Your task to perform on an android device: manage bookmarks in the chrome app Image 0: 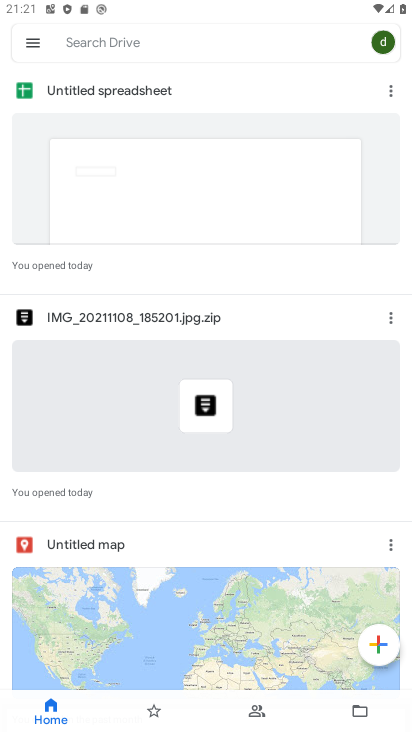
Step 0: press back button
Your task to perform on an android device: manage bookmarks in the chrome app Image 1: 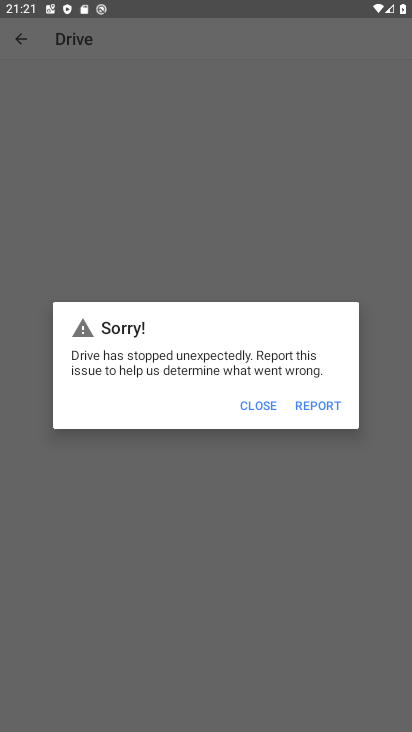
Step 1: press back button
Your task to perform on an android device: manage bookmarks in the chrome app Image 2: 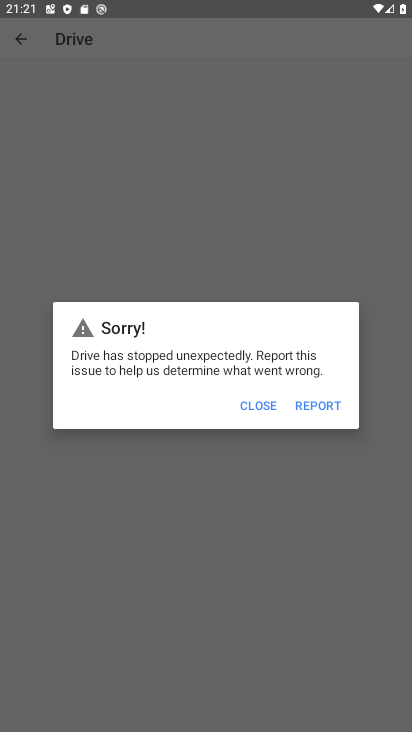
Step 2: click (253, 405)
Your task to perform on an android device: manage bookmarks in the chrome app Image 3: 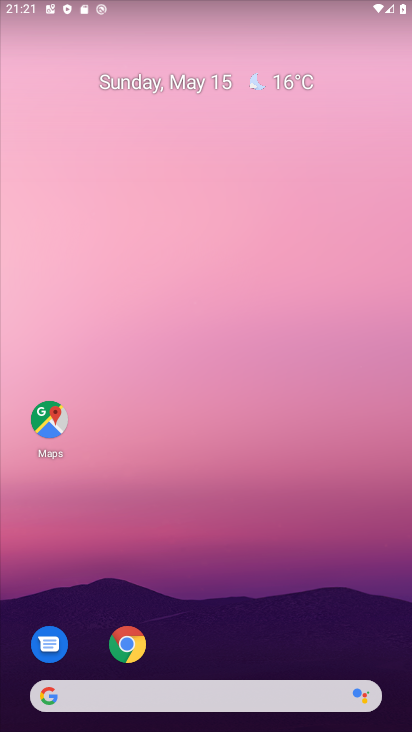
Step 3: click (123, 650)
Your task to perform on an android device: manage bookmarks in the chrome app Image 4: 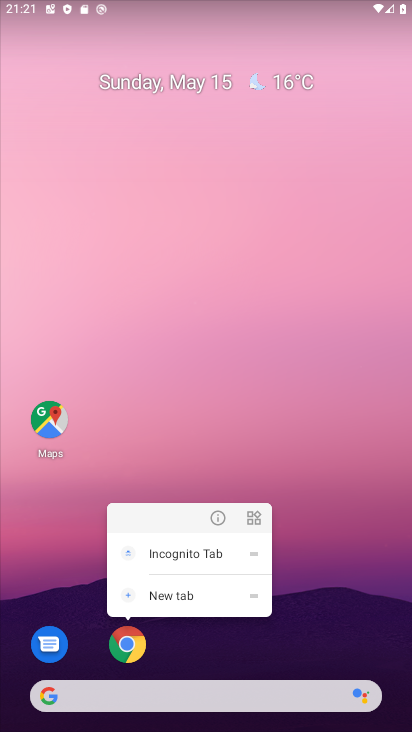
Step 4: click (131, 640)
Your task to perform on an android device: manage bookmarks in the chrome app Image 5: 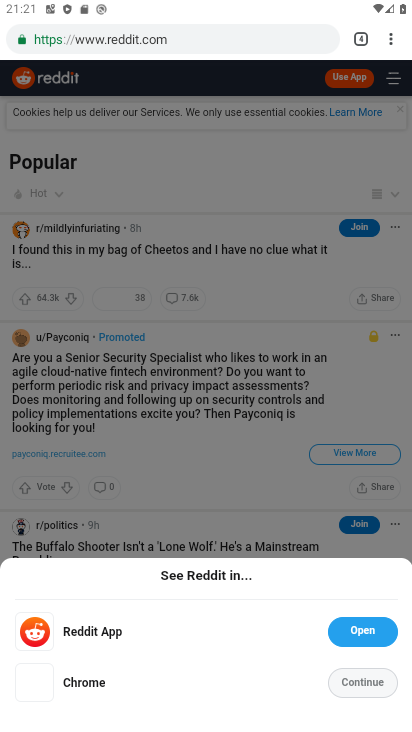
Step 5: drag from (387, 37) to (286, 153)
Your task to perform on an android device: manage bookmarks in the chrome app Image 6: 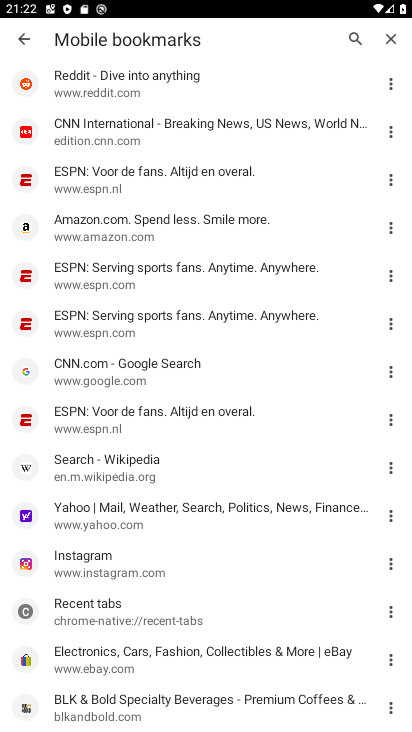
Step 6: click (390, 122)
Your task to perform on an android device: manage bookmarks in the chrome app Image 7: 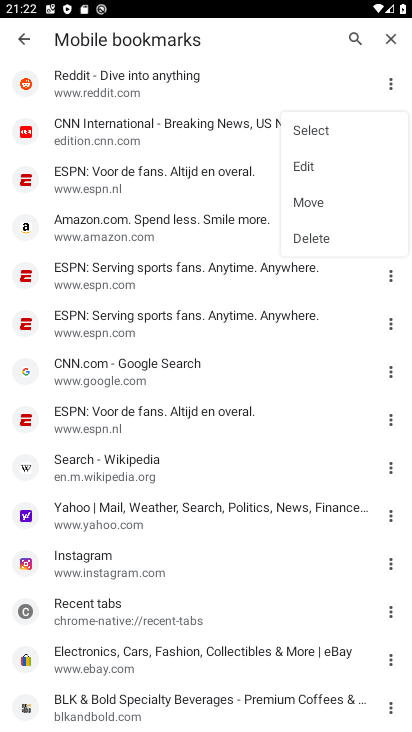
Step 7: click (315, 231)
Your task to perform on an android device: manage bookmarks in the chrome app Image 8: 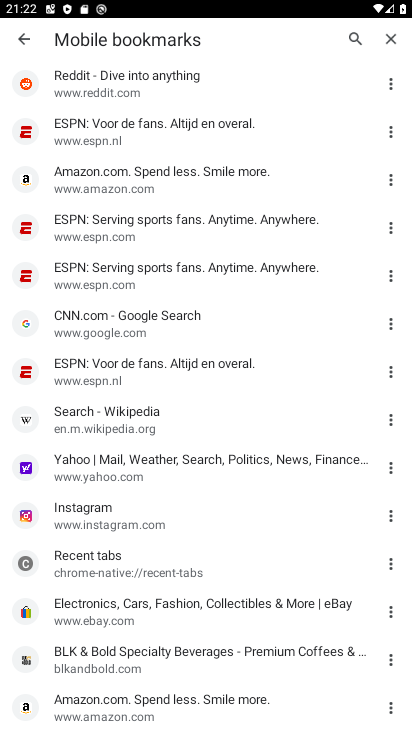
Step 8: task complete